Your task to perform on an android device: check google app version Image 0: 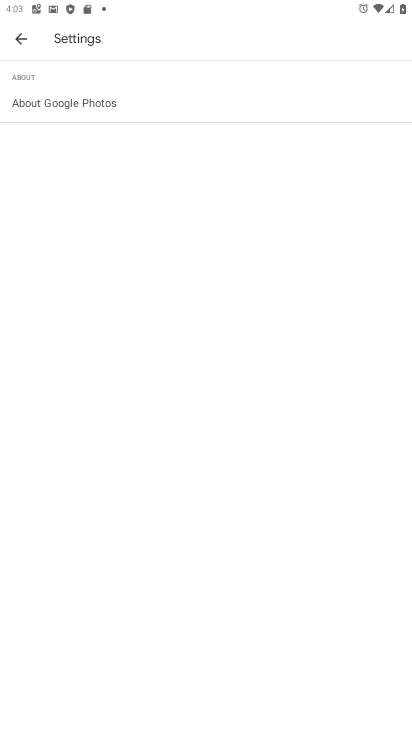
Step 0: press home button
Your task to perform on an android device: check google app version Image 1: 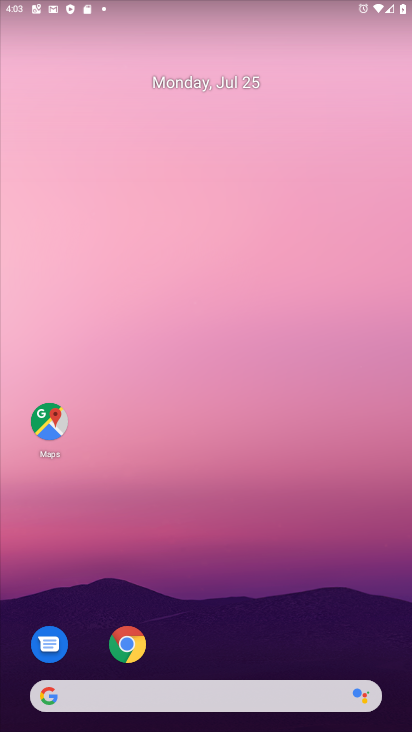
Step 1: drag from (264, 605) to (410, 120)
Your task to perform on an android device: check google app version Image 2: 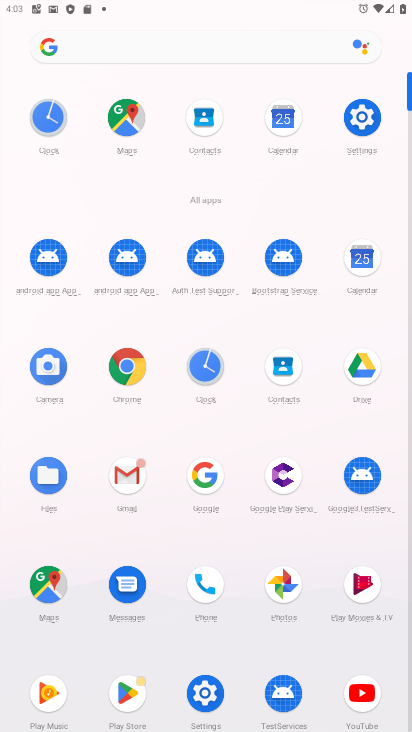
Step 2: click (203, 474)
Your task to perform on an android device: check google app version Image 3: 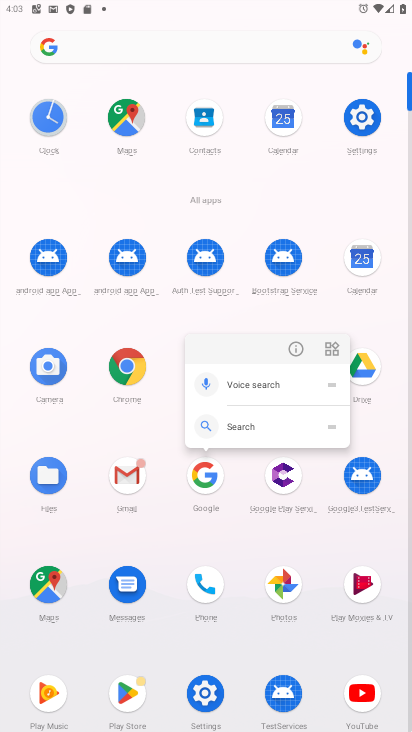
Step 3: click (295, 343)
Your task to perform on an android device: check google app version Image 4: 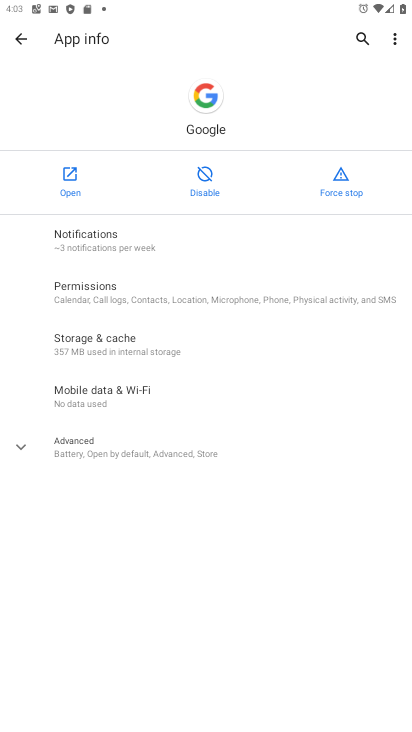
Step 4: click (20, 451)
Your task to perform on an android device: check google app version Image 5: 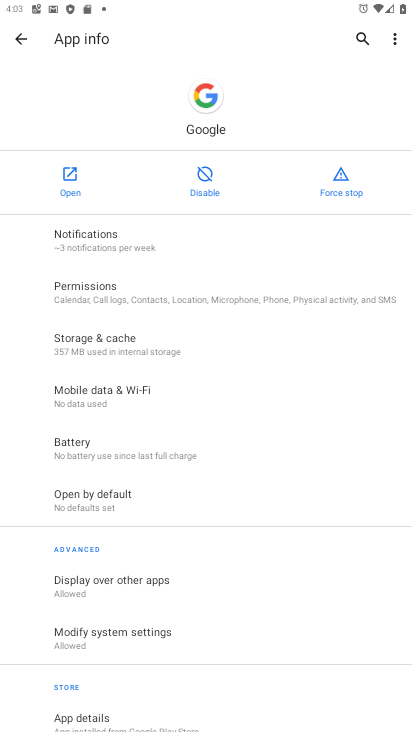
Step 5: task complete